Your task to perform on an android device: Open Google Maps Image 0: 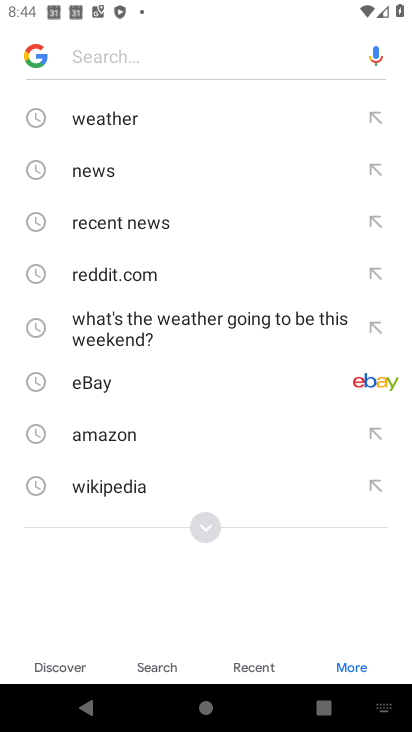
Step 0: press home button
Your task to perform on an android device: Open Google Maps Image 1: 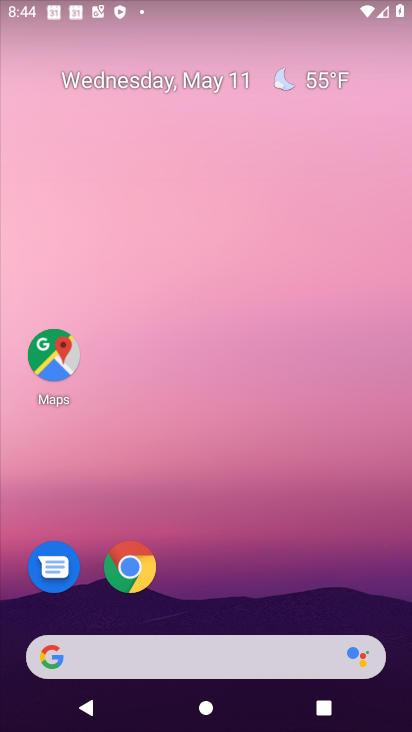
Step 1: click (53, 371)
Your task to perform on an android device: Open Google Maps Image 2: 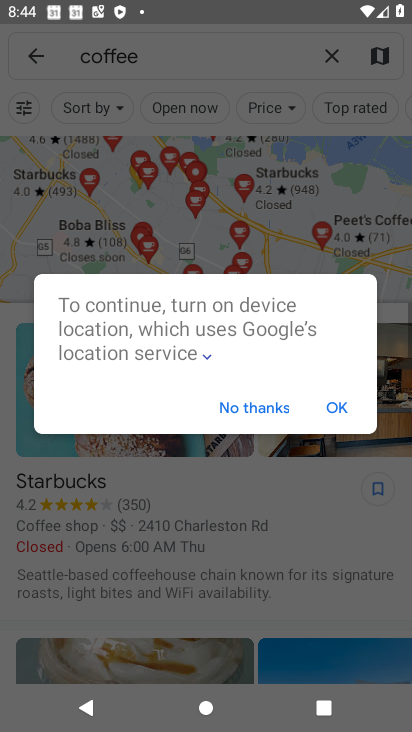
Step 2: click (268, 403)
Your task to perform on an android device: Open Google Maps Image 3: 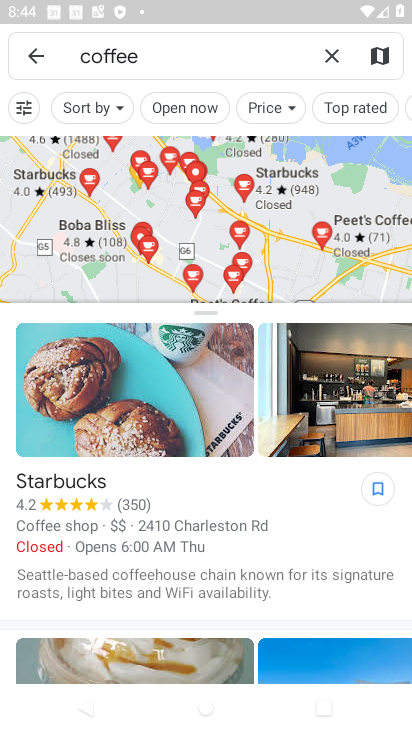
Step 3: click (33, 52)
Your task to perform on an android device: Open Google Maps Image 4: 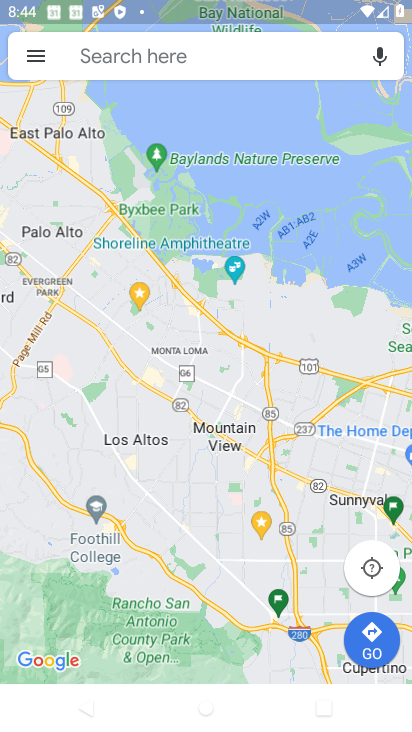
Step 4: task complete